Your task to perform on an android device: toggle improve location accuracy Image 0: 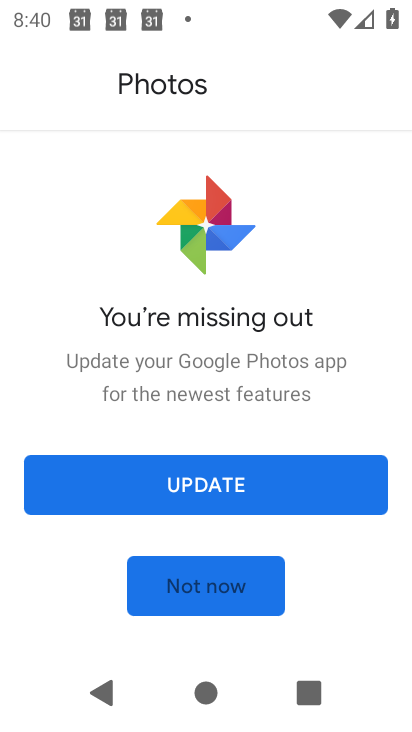
Step 0: press home button
Your task to perform on an android device: toggle improve location accuracy Image 1: 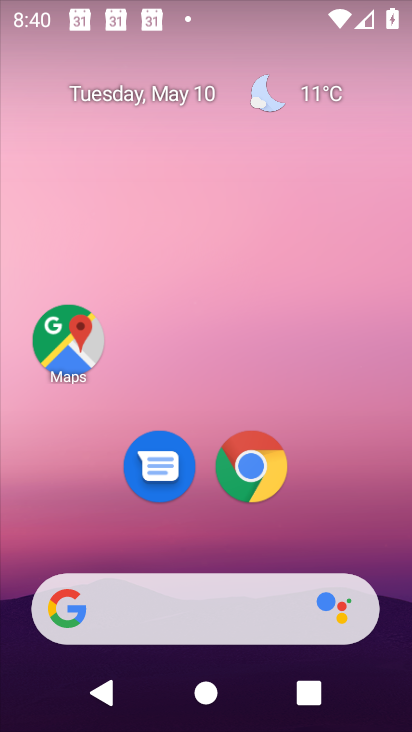
Step 1: drag from (226, 488) to (317, 8)
Your task to perform on an android device: toggle improve location accuracy Image 2: 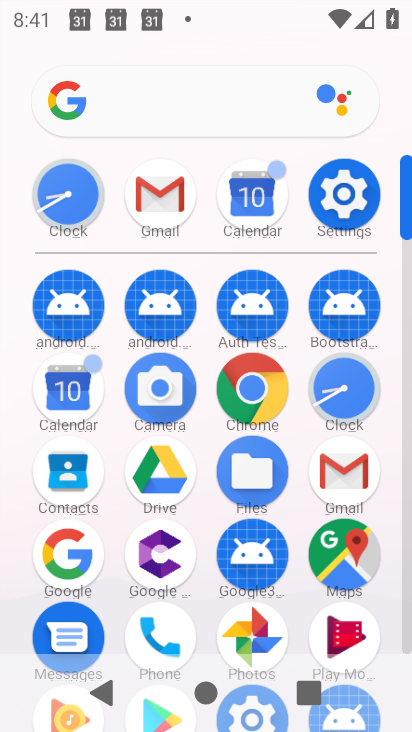
Step 2: click (335, 199)
Your task to perform on an android device: toggle improve location accuracy Image 3: 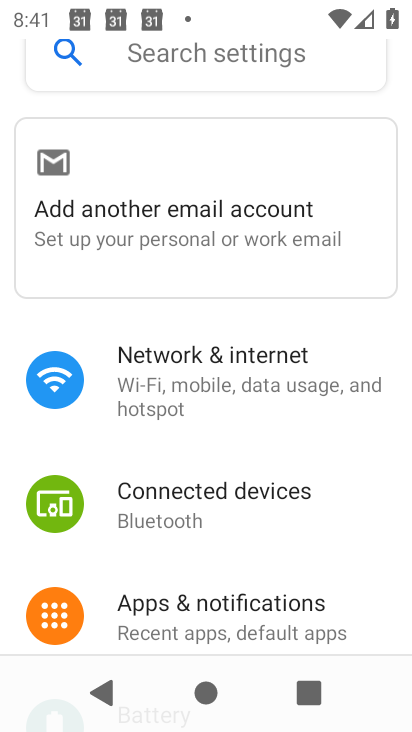
Step 3: drag from (198, 593) to (196, 188)
Your task to perform on an android device: toggle improve location accuracy Image 4: 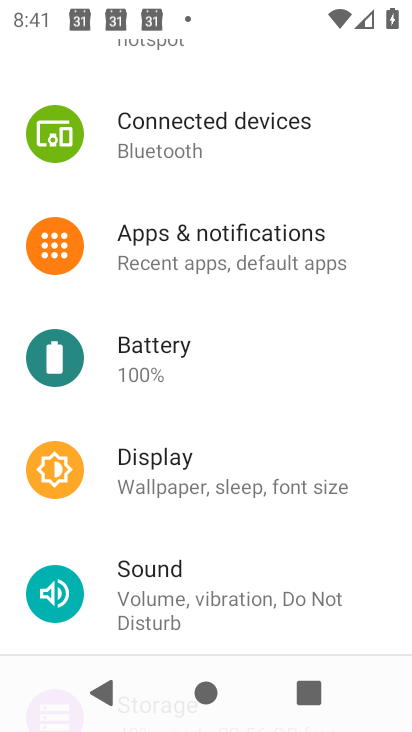
Step 4: drag from (209, 543) to (243, 232)
Your task to perform on an android device: toggle improve location accuracy Image 5: 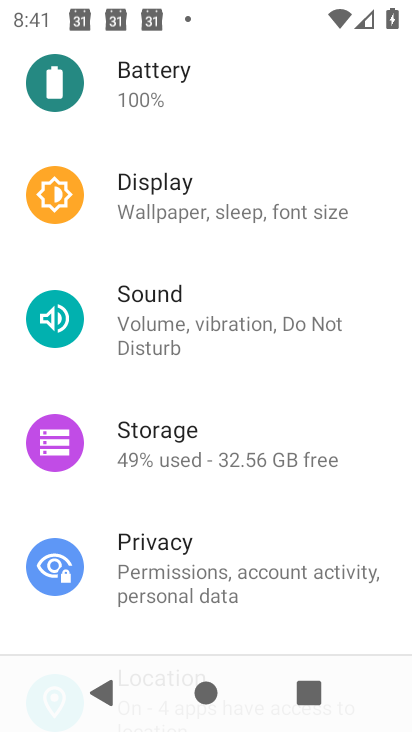
Step 5: drag from (209, 590) to (244, 201)
Your task to perform on an android device: toggle improve location accuracy Image 6: 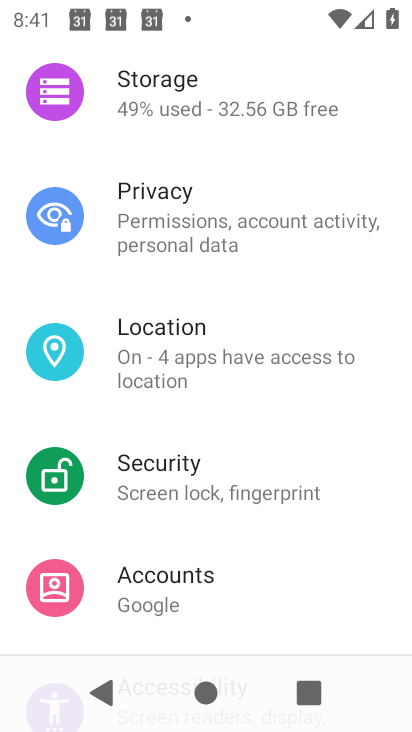
Step 6: click (189, 372)
Your task to perform on an android device: toggle improve location accuracy Image 7: 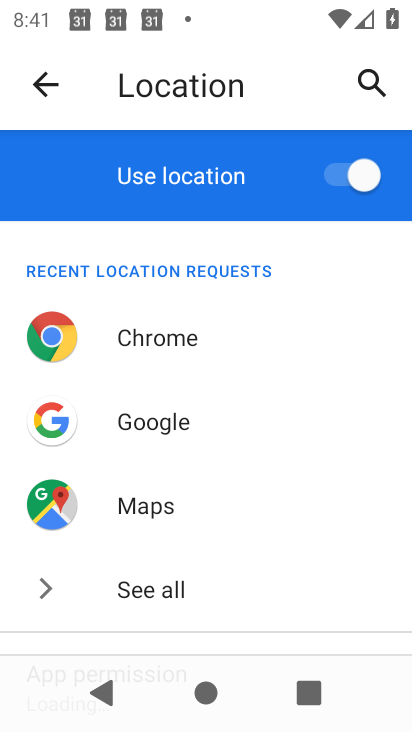
Step 7: drag from (244, 586) to (272, 224)
Your task to perform on an android device: toggle improve location accuracy Image 8: 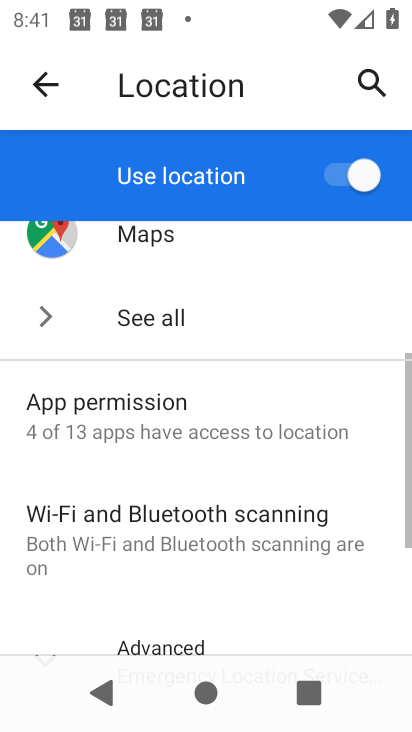
Step 8: drag from (206, 543) to (214, 169)
Your task to perform on an android device: toggle improve location accuracy Image 9: 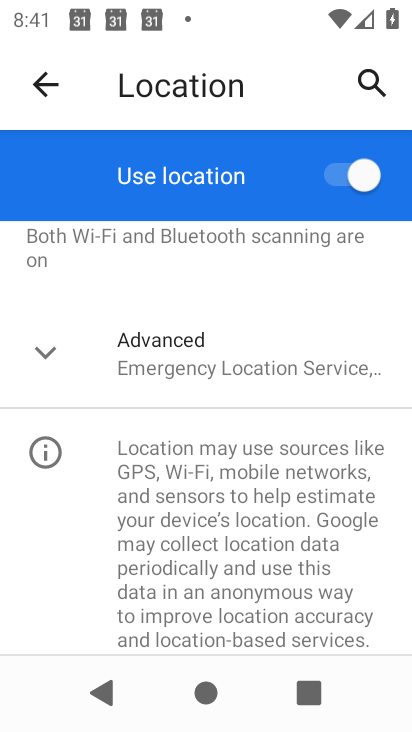
Step 9: click (146, 588)
Your task to perform on an android device: toggle improve location accuracy Image 10: 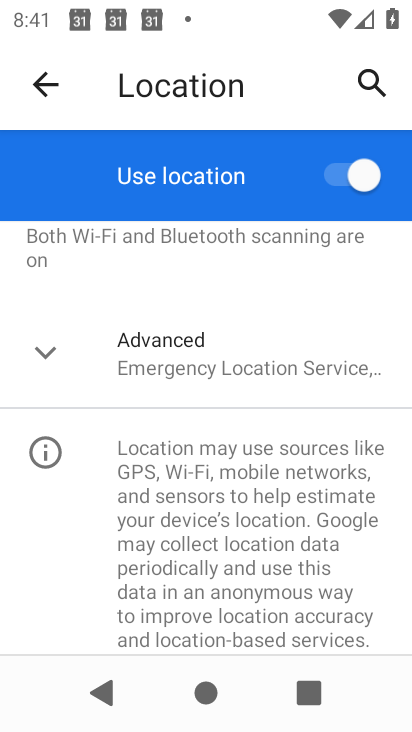
Step 10: click (47, 364)
Your task to perform on an android device: toggle improve location accuracy Image 11: 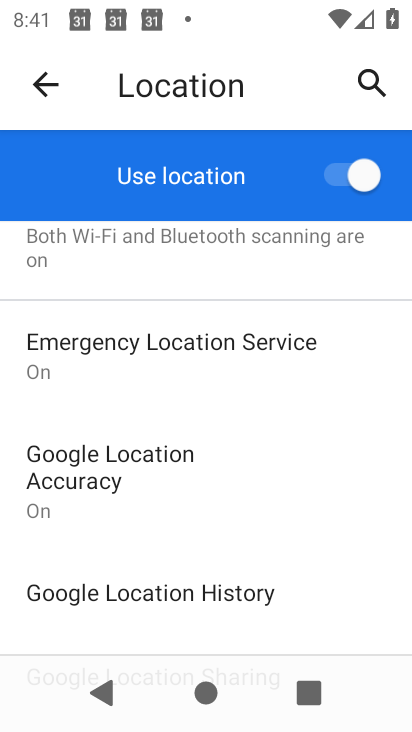
Step 11: click (130, 461)
Your task to perform on an android device: toggle improve location accuracy Image 12: 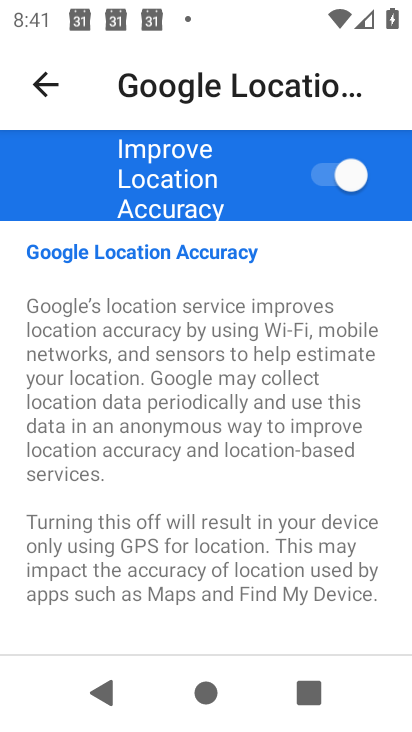
Step 12: click (314, 179)
Your task to perform on an android device: toggle improve location accuracy Image 13: 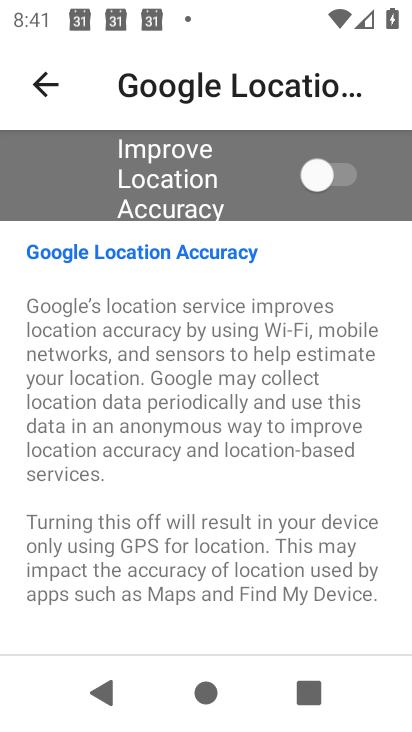
Step 13: task complete